Your task to perform on an android device: What's the weather today? Image 0: 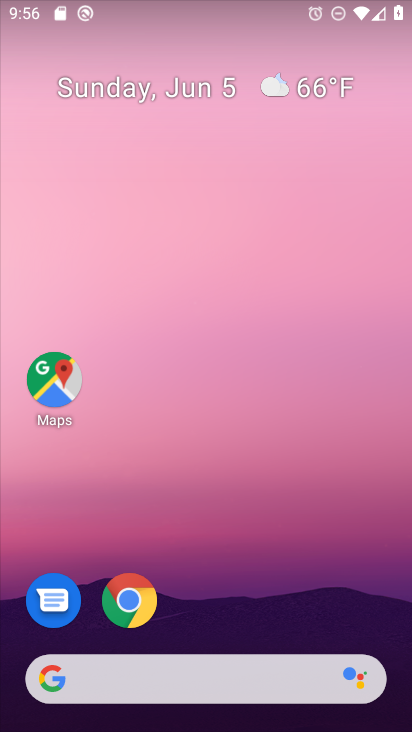
Step 0: drag from (328, 607) to (292, 64)
Your task to perform on an android device: What's the weather today? Image 1: 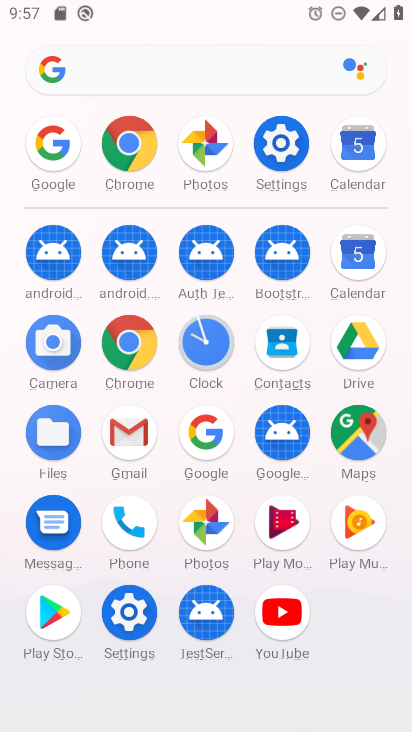
Step 1: click (205, 416)
Your task to perform on an android device: What's the weather today? Image 2: 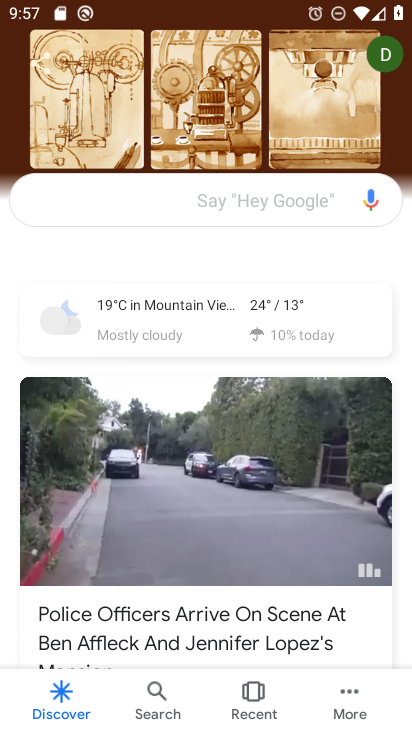
Step 2: click (170, 204)
Your task to perform on an android device: What's the weather today? Image 3: 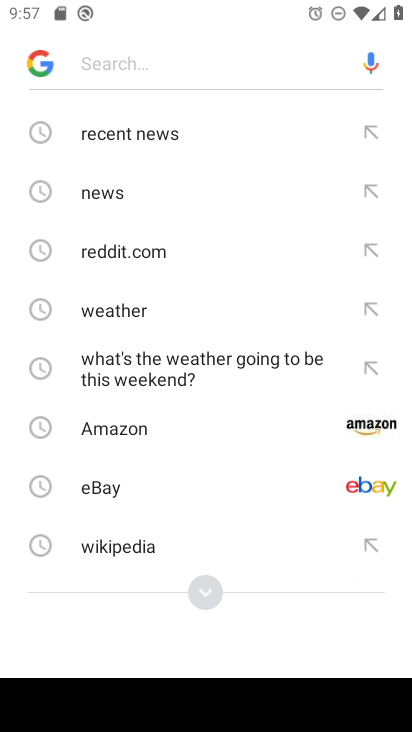
Step 3: click (193, 588)
Your task to perform on an android device: What's the weather today? Image 4: 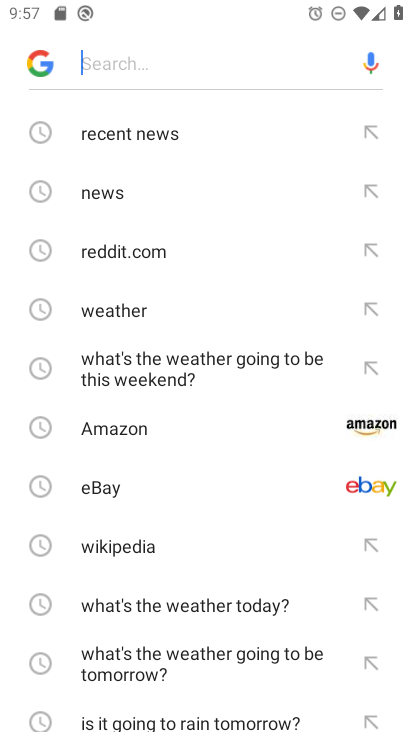
Step 4: click (173, 614)
Your task to perform on an android device: What's the weather today? Image 5: 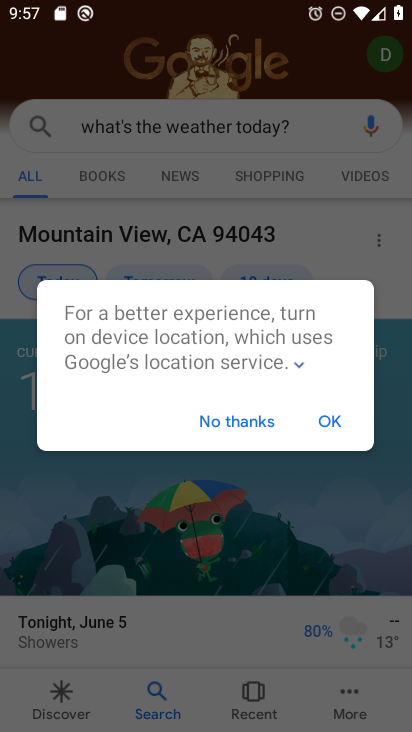
Step 5: click (236, 406)
Your task to perform on an android device: What's the weather today? Image 6: 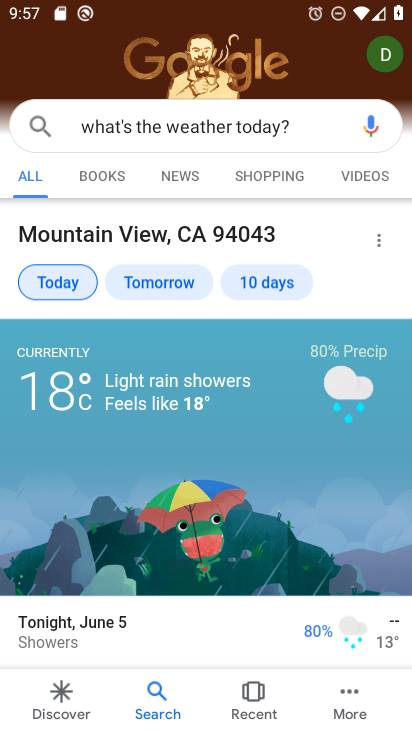
Step 6: task complete